Your task to perform on an android device: change notification settings in the gmail app Image 0: 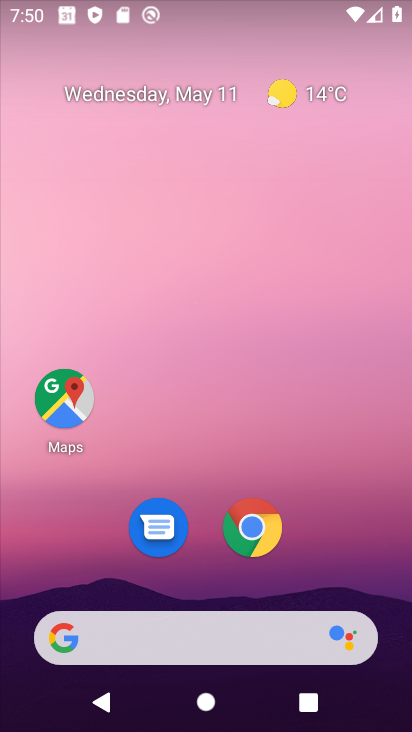
Step 0: drag from (209, 581) to (252, 15)
Your task to perform on an android device: change notification settings in the gmail app Image 1: 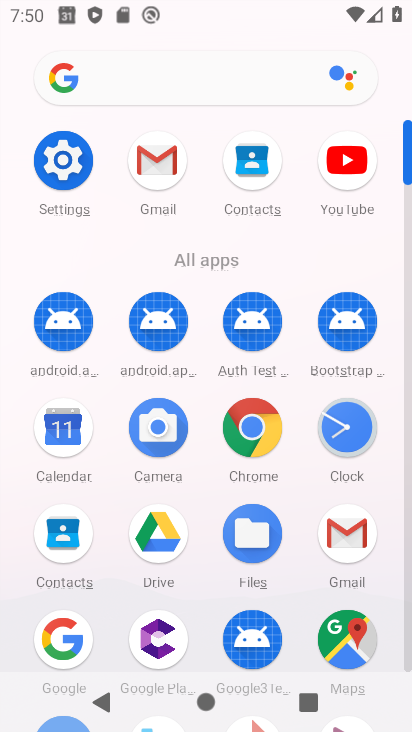
Step 1: click (160, 188)
Your task to perform on an android device: change notification settings in the gmail app Image 2: 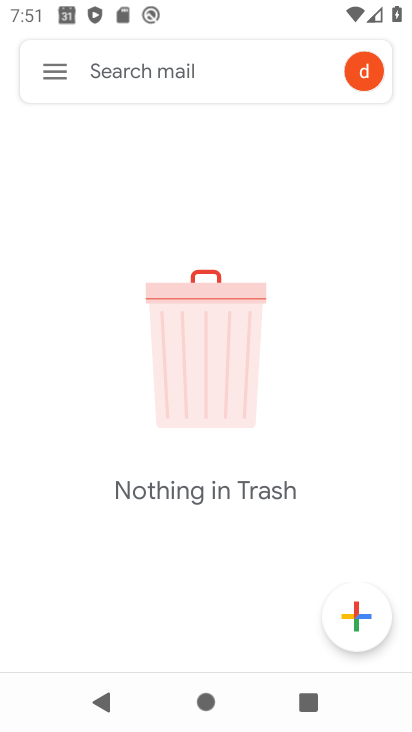
Step 2: click (71, 86)
Your task to perform on an android device: change notification settings in the gmail app Image 3: 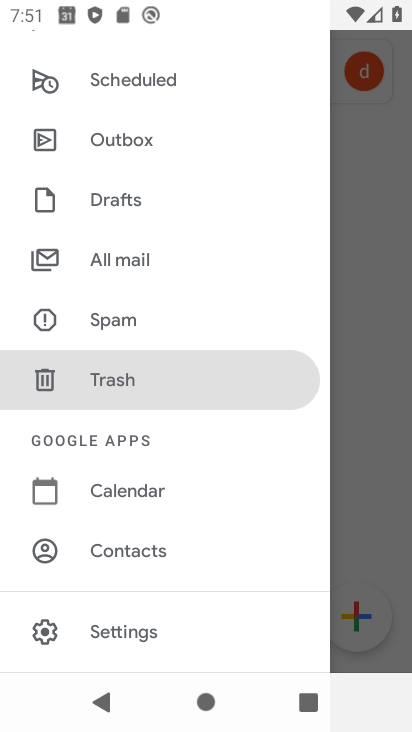
Step 3: click (171, 634)
Your task to perform on an android device: change notification settings in the gmail app Image 4: 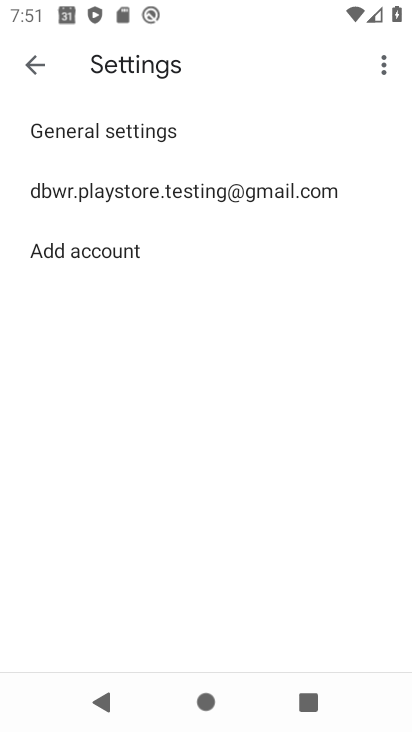
Step 4: click (213, 177)
Your task to perform on an android device: change notification settings in the gmail app Image 5: 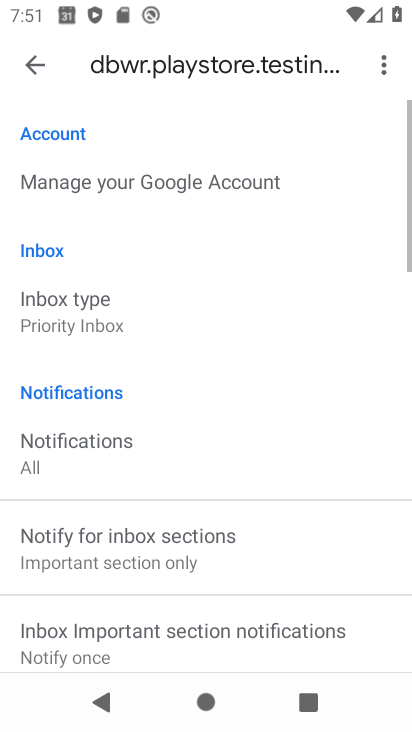
Step 5: click (169, 413)
Your task to perform on an android device: change notification settings in the gmail app Image 6: 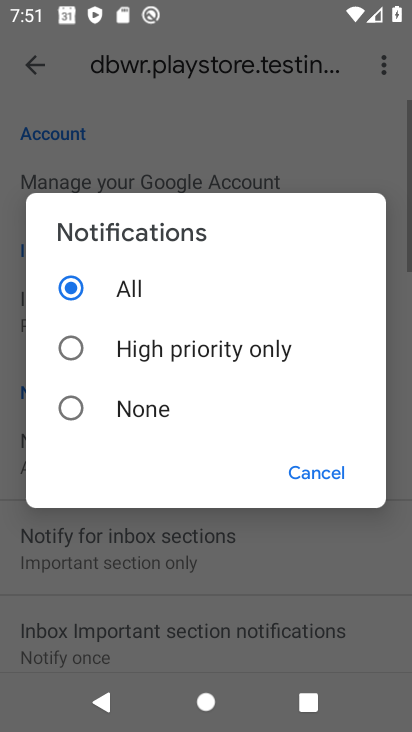
Step 6: click (193, 338)
Your task to perform on an android device: change notification settings in the gmail app Image 7: 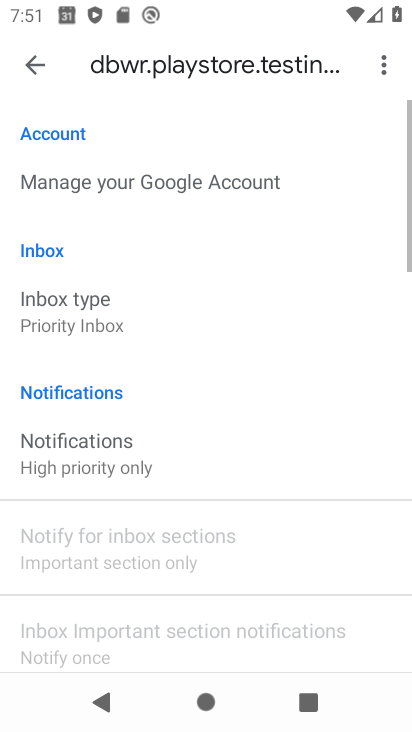
Step 7: task complete